Your task to perform on an android device: Open sound settings Image 0: 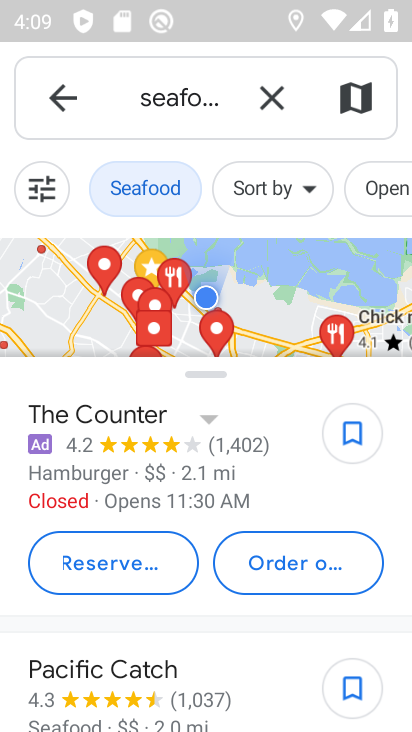
Step 0: press back button
Your task to perform on an android device: Open sound settings Image 1: 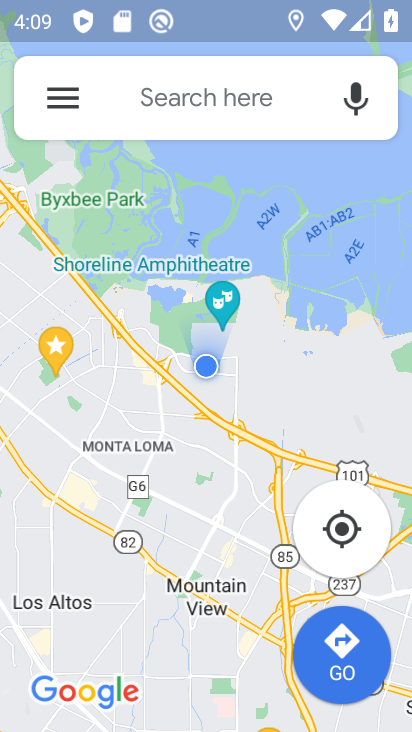
Step 1: press back button
Your task to perform on an android device: Open sound settings Image 2: 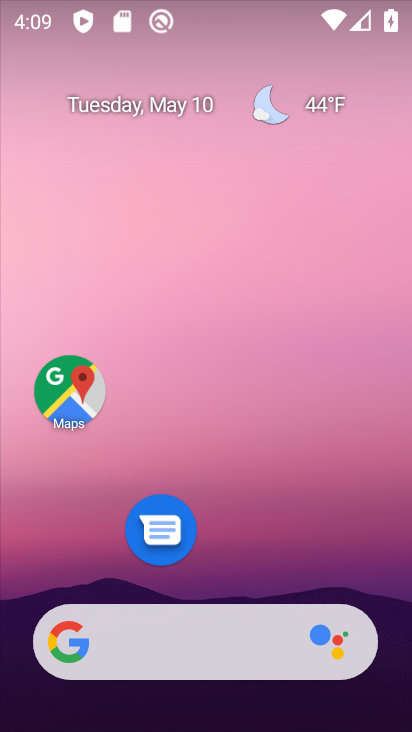
Step 2: drag from (228, 481) to (279, 78)
Your task to perform on an android device: Open sound settings Image 3: 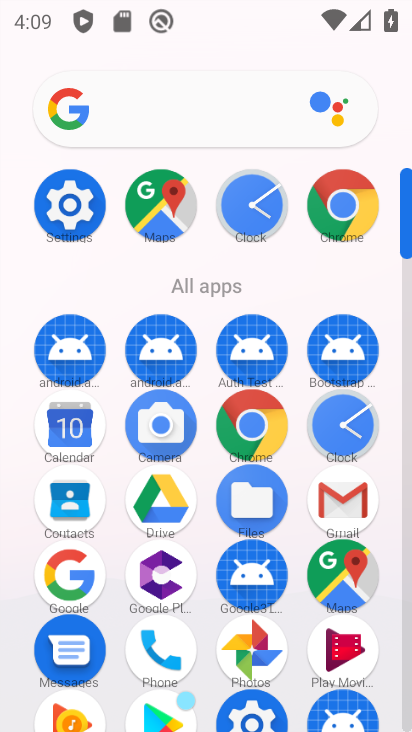
Step 3: click (74, 209)
Your task to perform on an android device: Open sound settings Image 4: 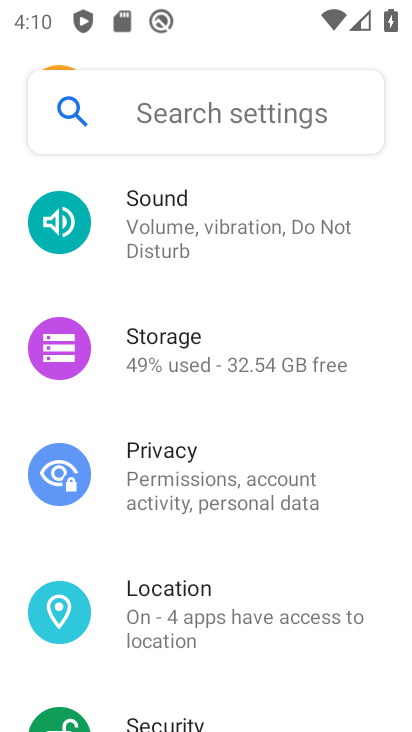
Step 4: click (195, 221)
Your task to perform on an android device: Open sound settings Image 5: 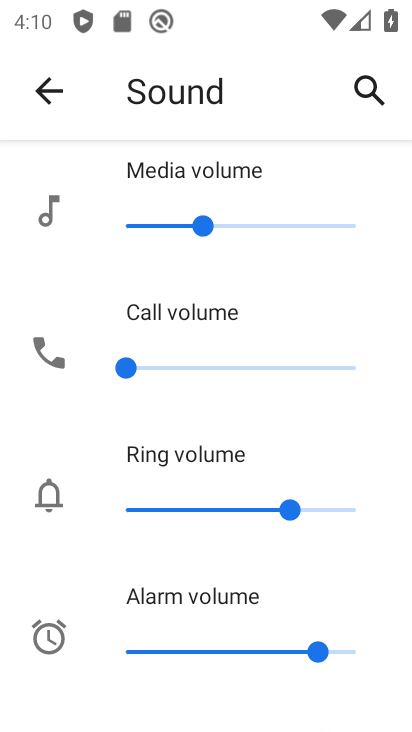
Step 5: task complete